Your task to perform on an android device: turn smart compose on in the gmail app Image 0: 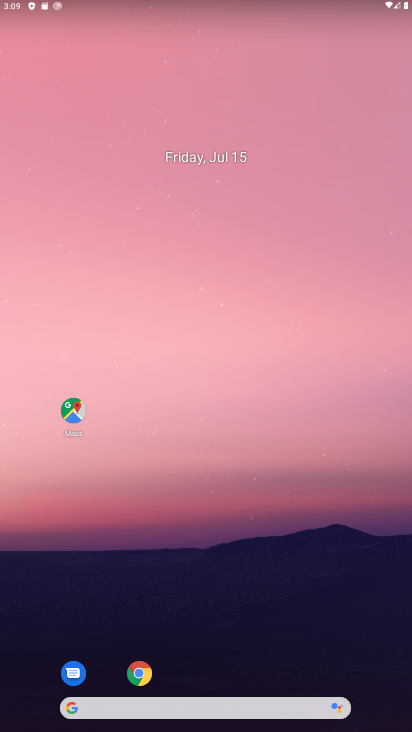
Step 0: drag from (174, 668) to (243, 222)
Your task to perform on an android device: turn smart compose on in the gmail app Image 1: 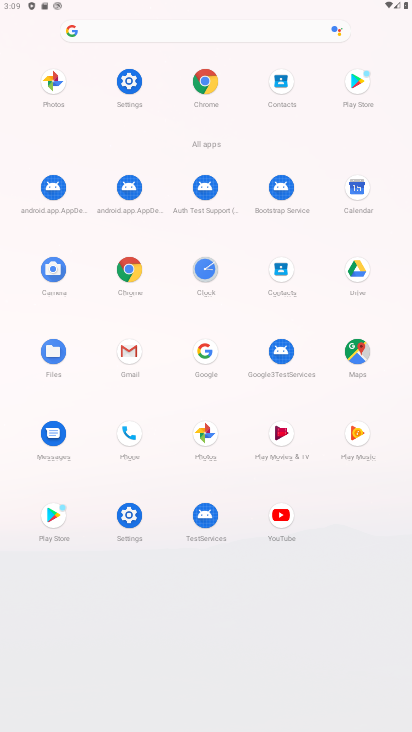
Step 1: click (133, 343)
Your task to perform on an android device: turn smart compose on in the gmail app Image 2: 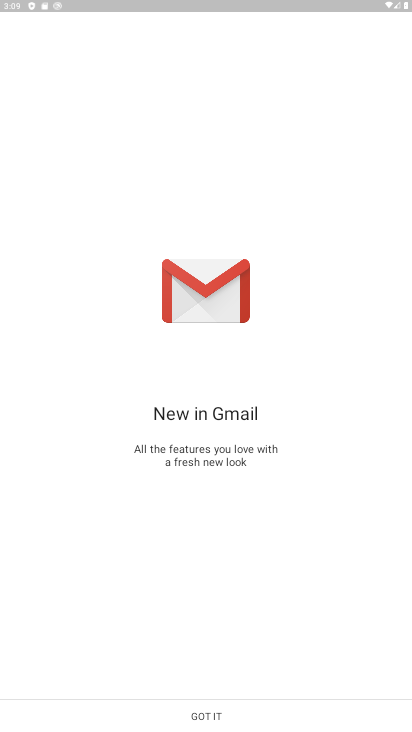
Step 2: click (187, 703)
Your task to perform on an android device: turn smart compose on in the gmail app Image 3: 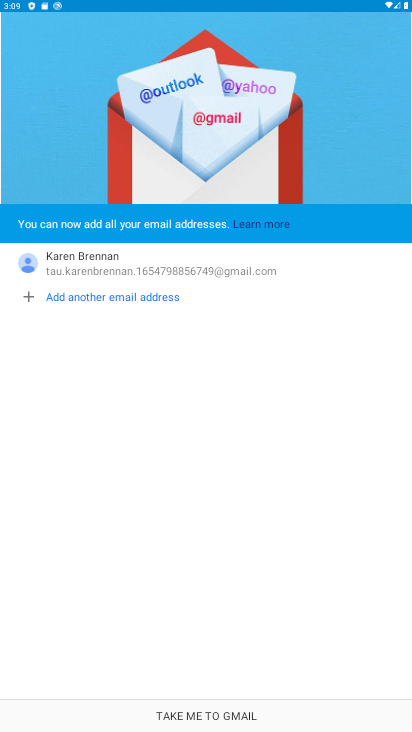
Step 3: click (208, 714)
Your task to perform on an android device: turn smart compose on in the gmail app Image 4: 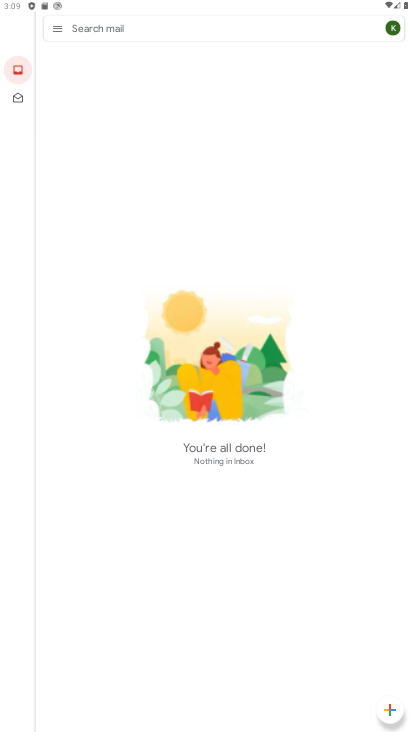
Step 4: click (60, 20)
Your task to perform on an android device: turn smart compose on in the gmail app Image 5: 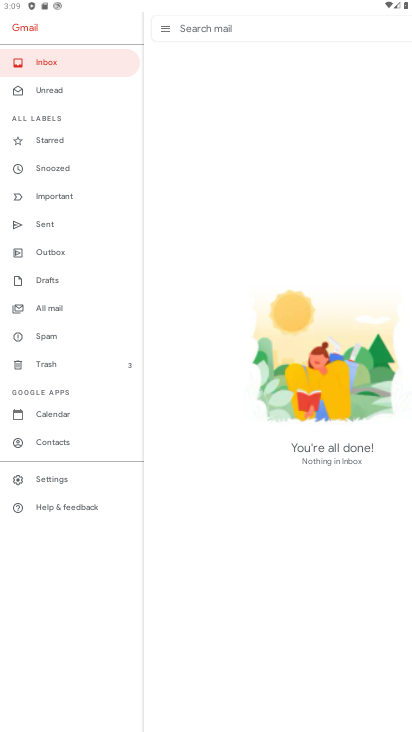
Step 5: click (84, 485)
Your task to perform on an android device: turn smart compose on in the gmail app Image 6: 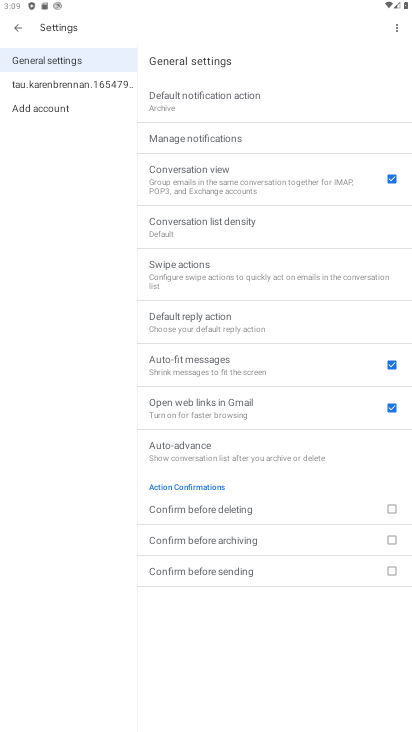
Step 6: click (104, 96)
Your task to perform on an android device: turn smart compose on in the gmail app Image 7: 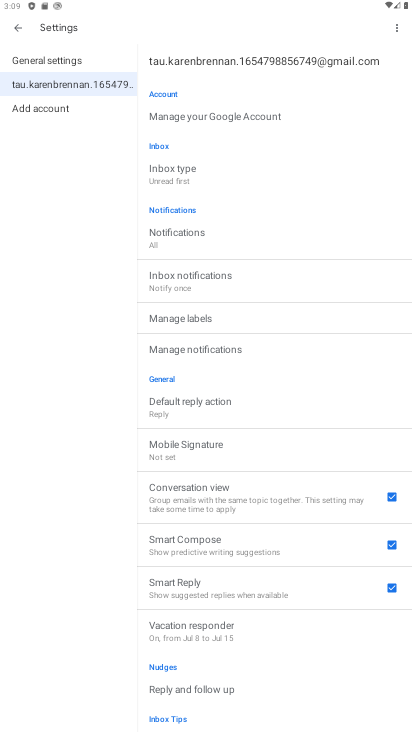
Step 7: task complete